Your task to perform on an android device: Add "logitech g903" to the cart on amazon Image 0: 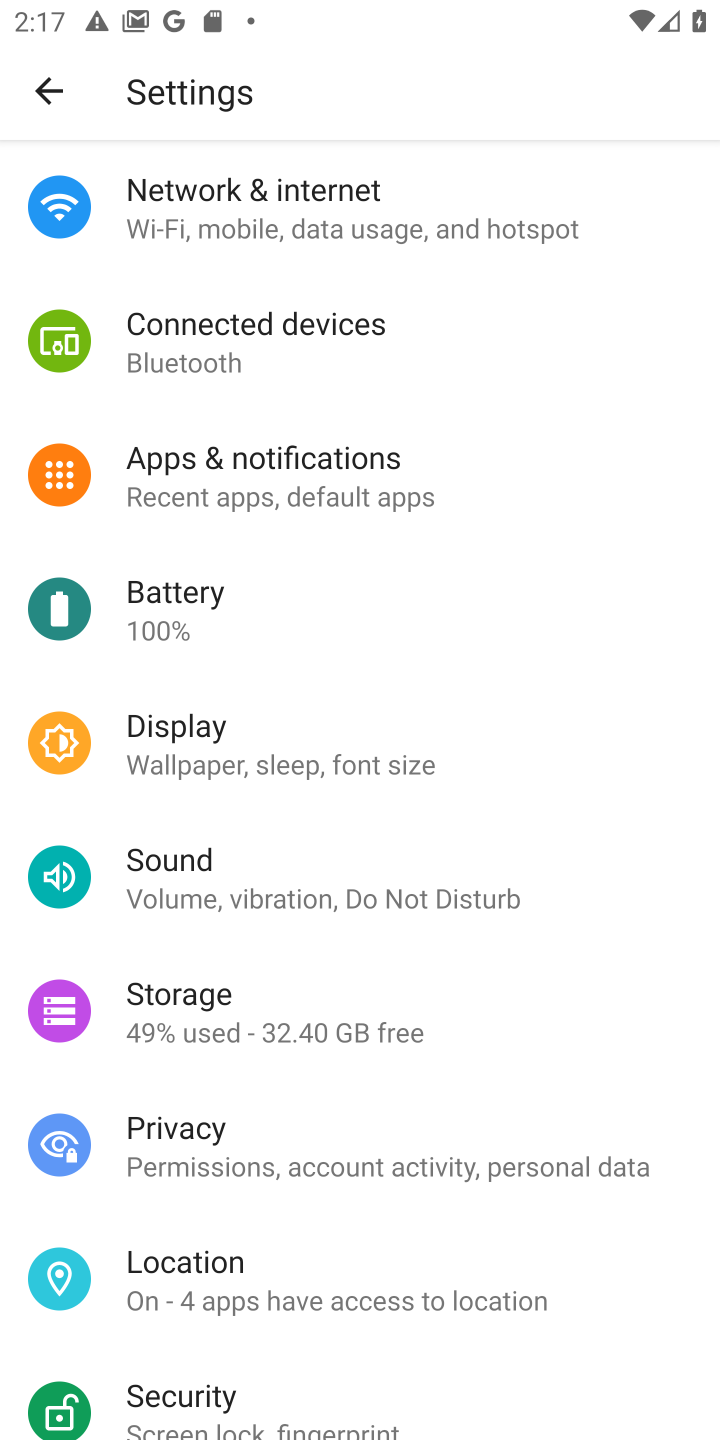
Step 0: press home button
Your task to perform on an android device: Add "logitech g903" to the cart on amazon Image 1: 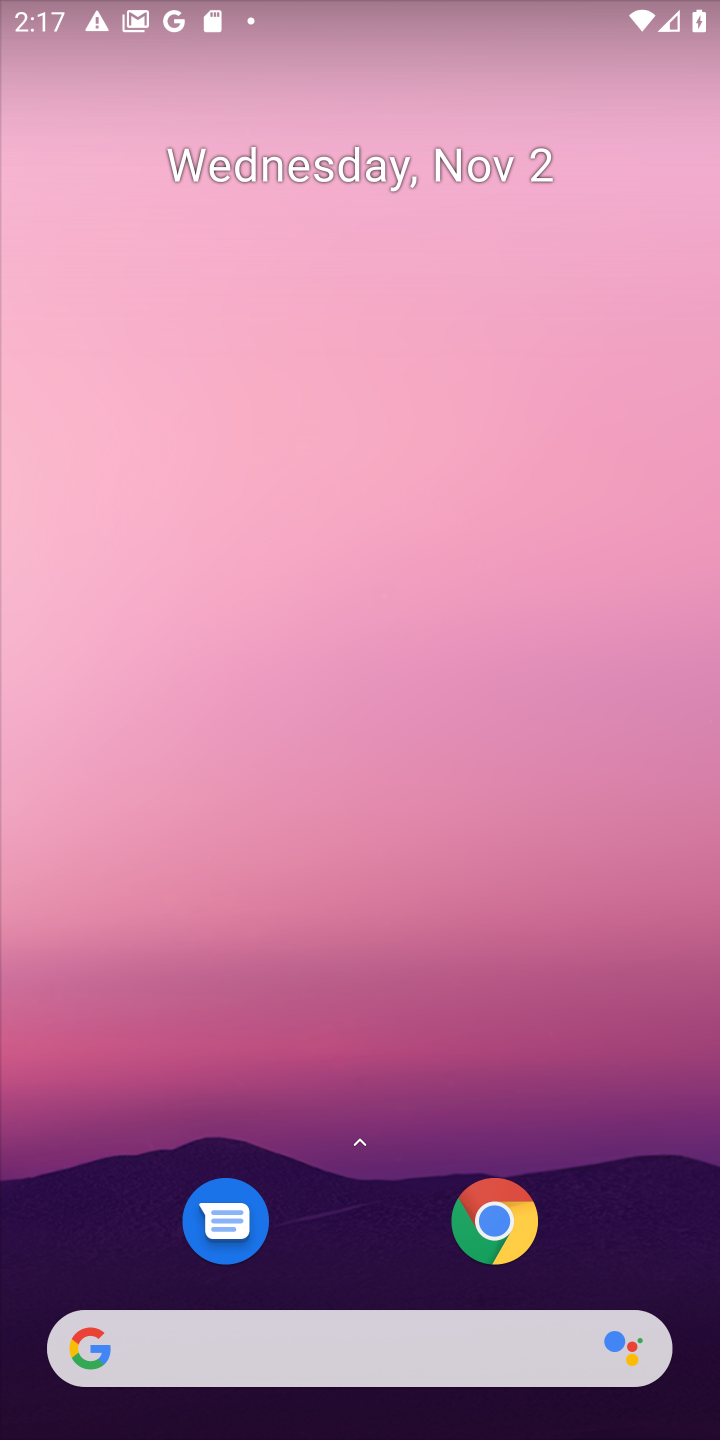
Step 1: click (474, 1338)
Your task to perform on an android device: Add "logitech g903" to the cart on amazon Image 2: 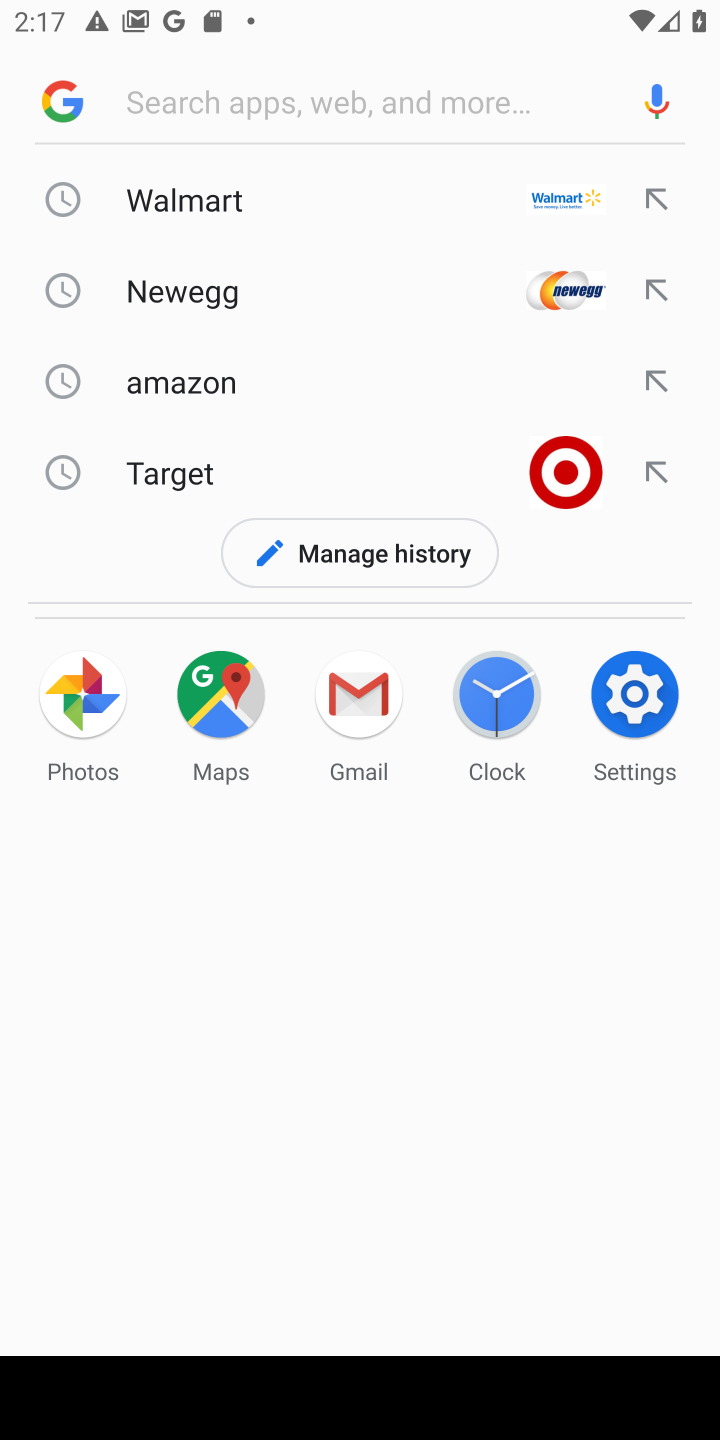
Step 2: click (218, 384)
Your task to perform on an android device: Add "logitech g903" to the cart on amazon Image 3: 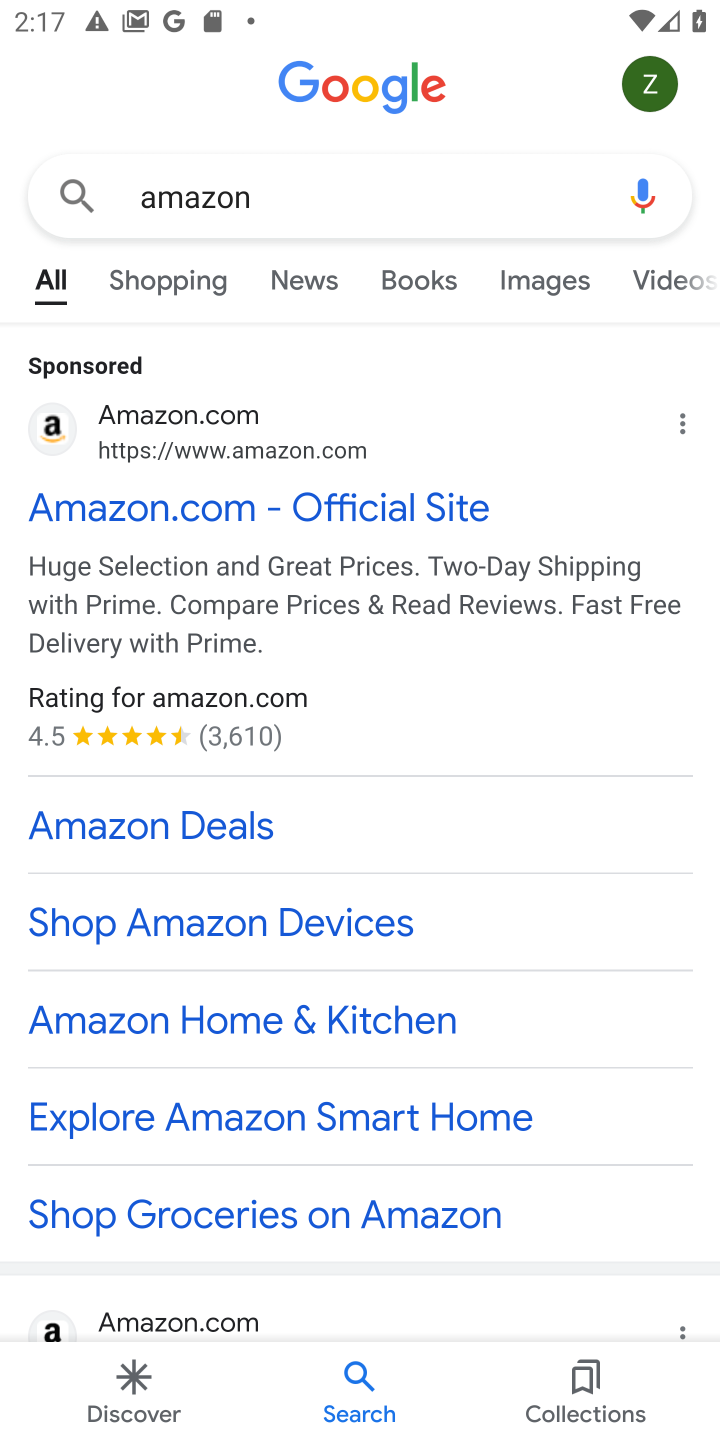
Step 3: click (251, 515)
Your task to perform on an android device: Add "logitech g903" to the cart on amazon Image 4: 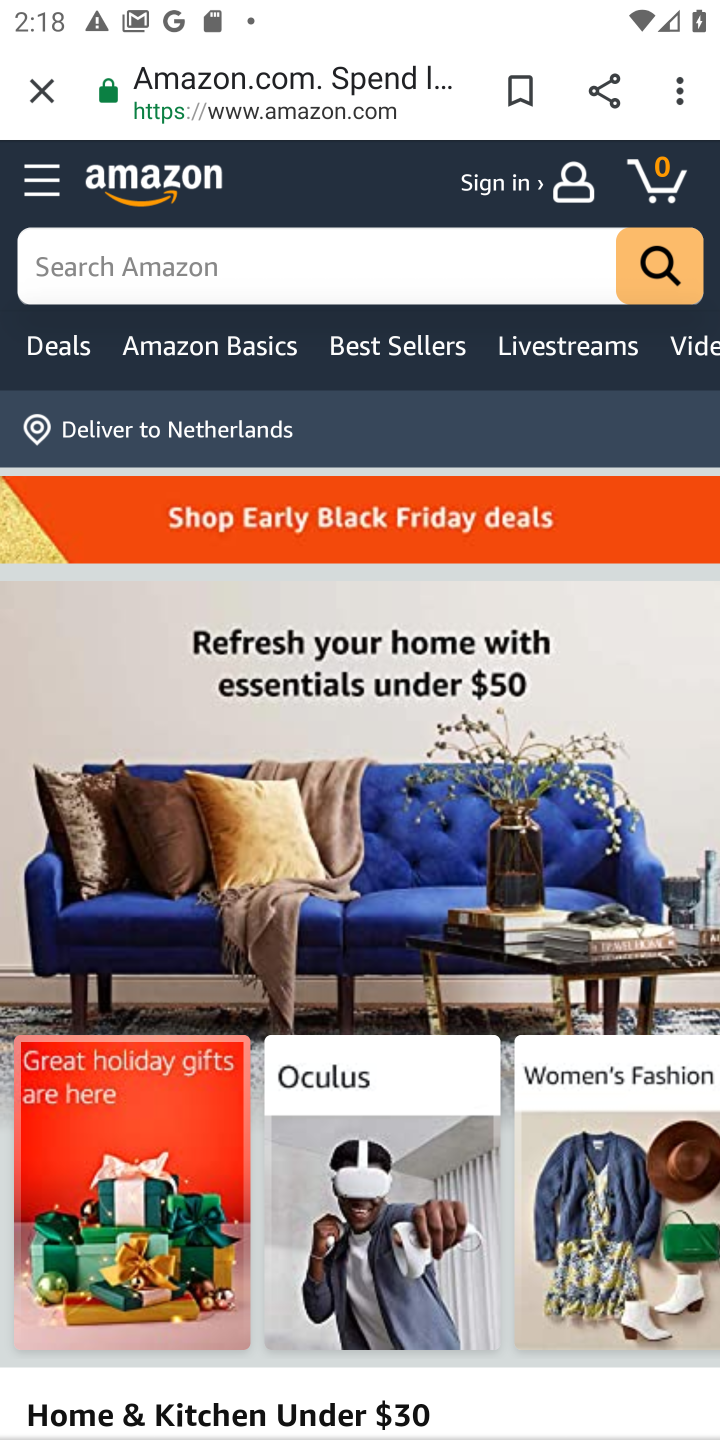
Step 4: click (177, 289)
Your task to perform on an android device: Add "logitech g903" to the cart on amazon Image 5: 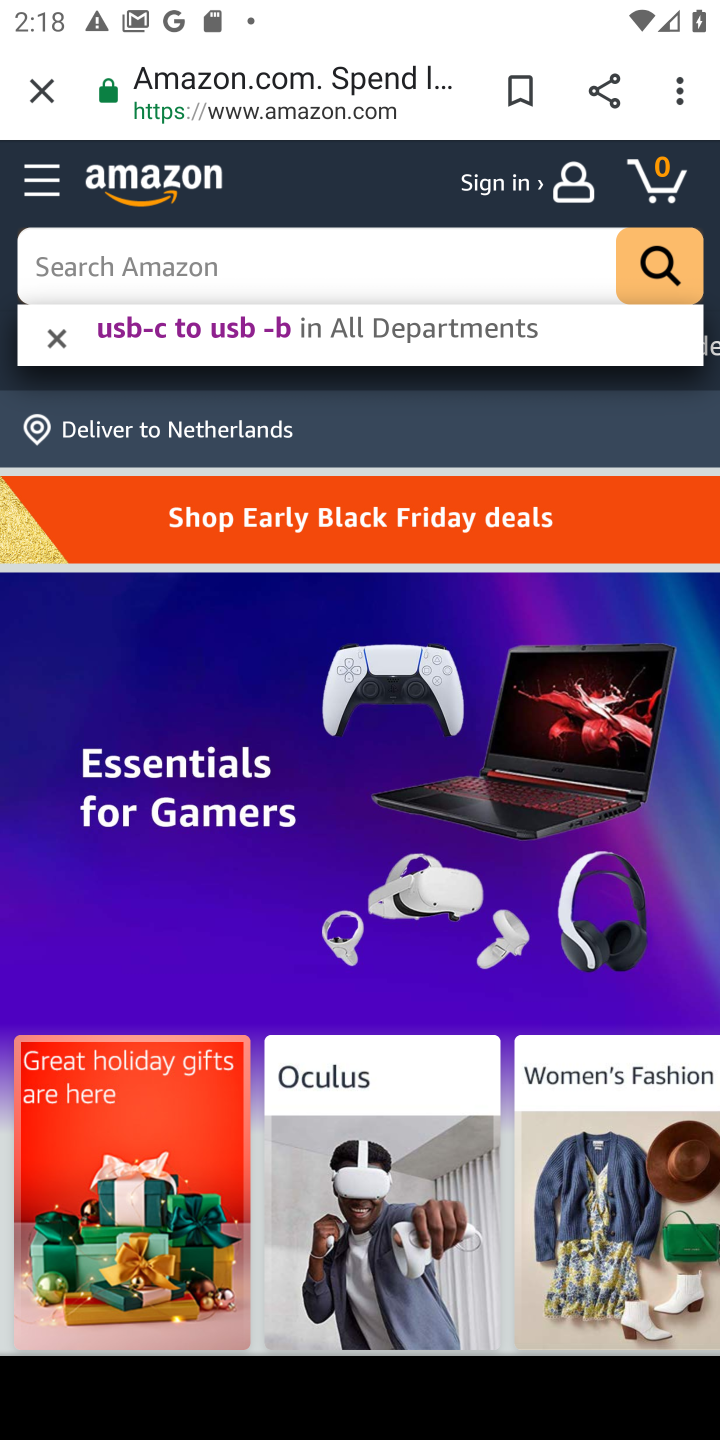
Step 5: type "logitech g903"
Your task to perform on an android device: Add "logitech g903" to the cart on amazon Image 6: 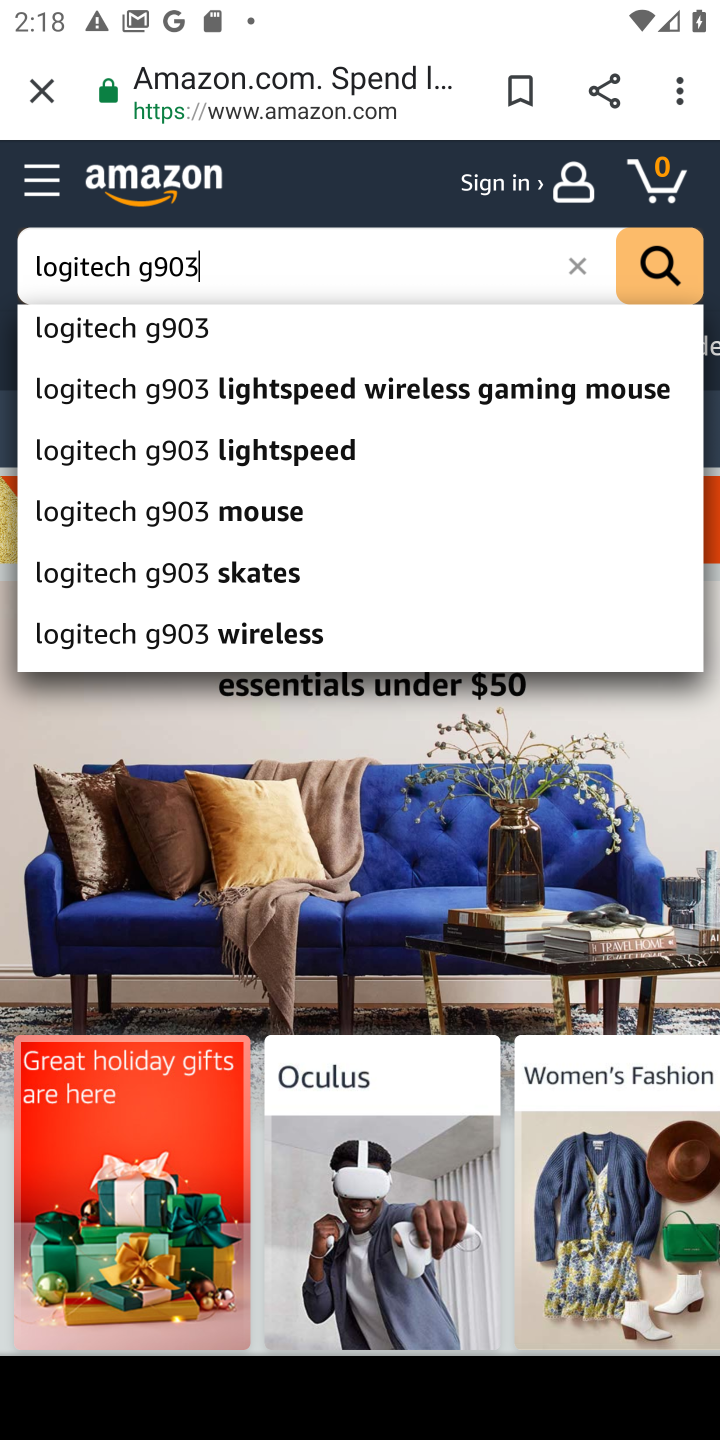
Step 6: click (426, 345)
Your task to perform on an android device: Add "logitech g903" to the cart on amazon Image 7: 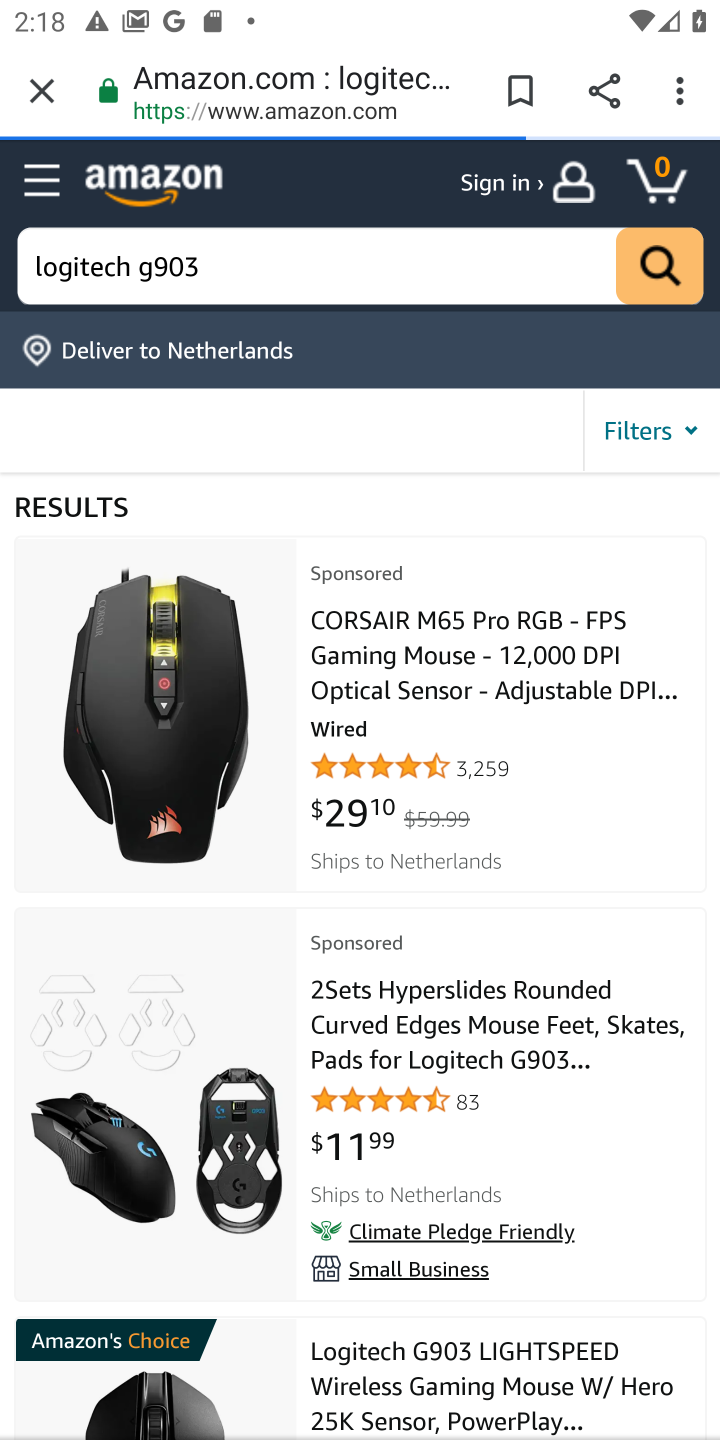
Step 7: click (506, 734)
Your task to perform on an android device: Add "logitech g903" to the cart on amazon Image 8: 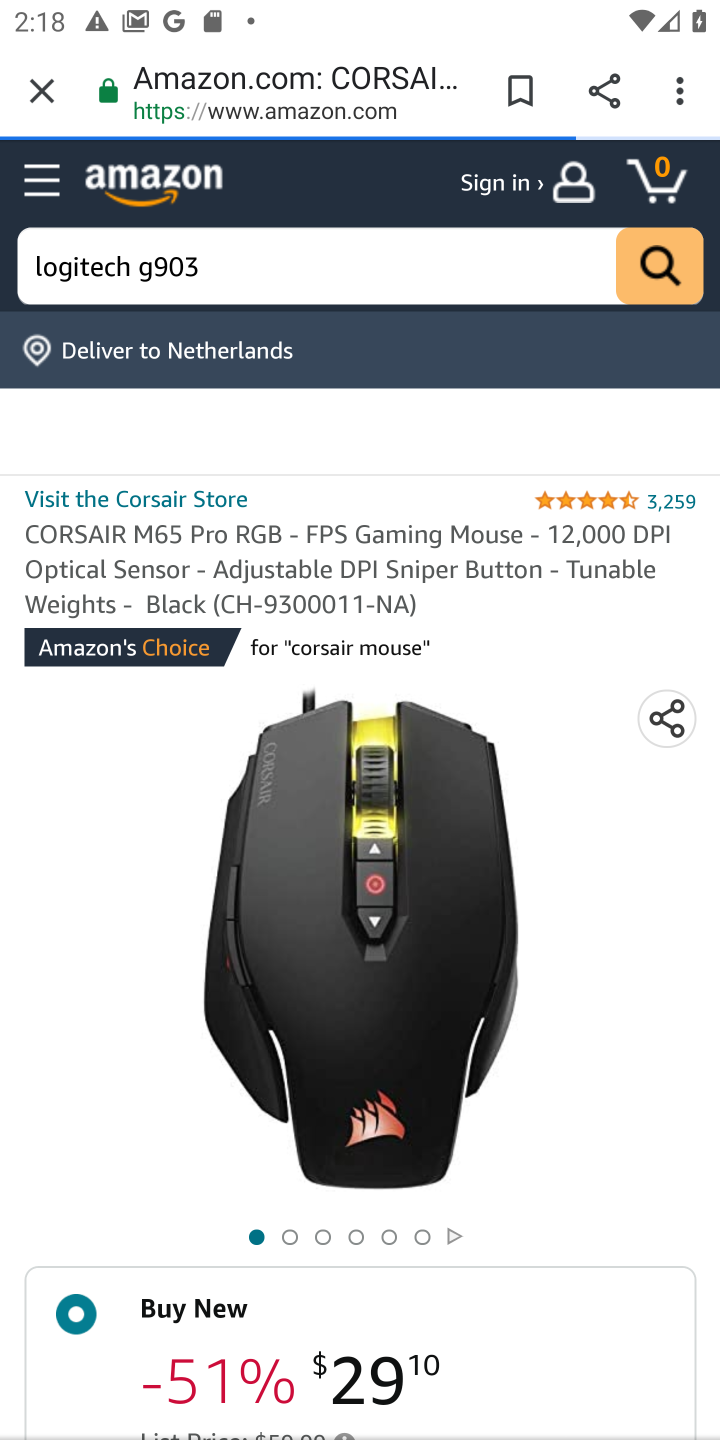
Step 8: drag from (555, 1108) to (542, 689)
Your task to perform on an android device: Add "logitech g903" to the cart on amazon Image 9: 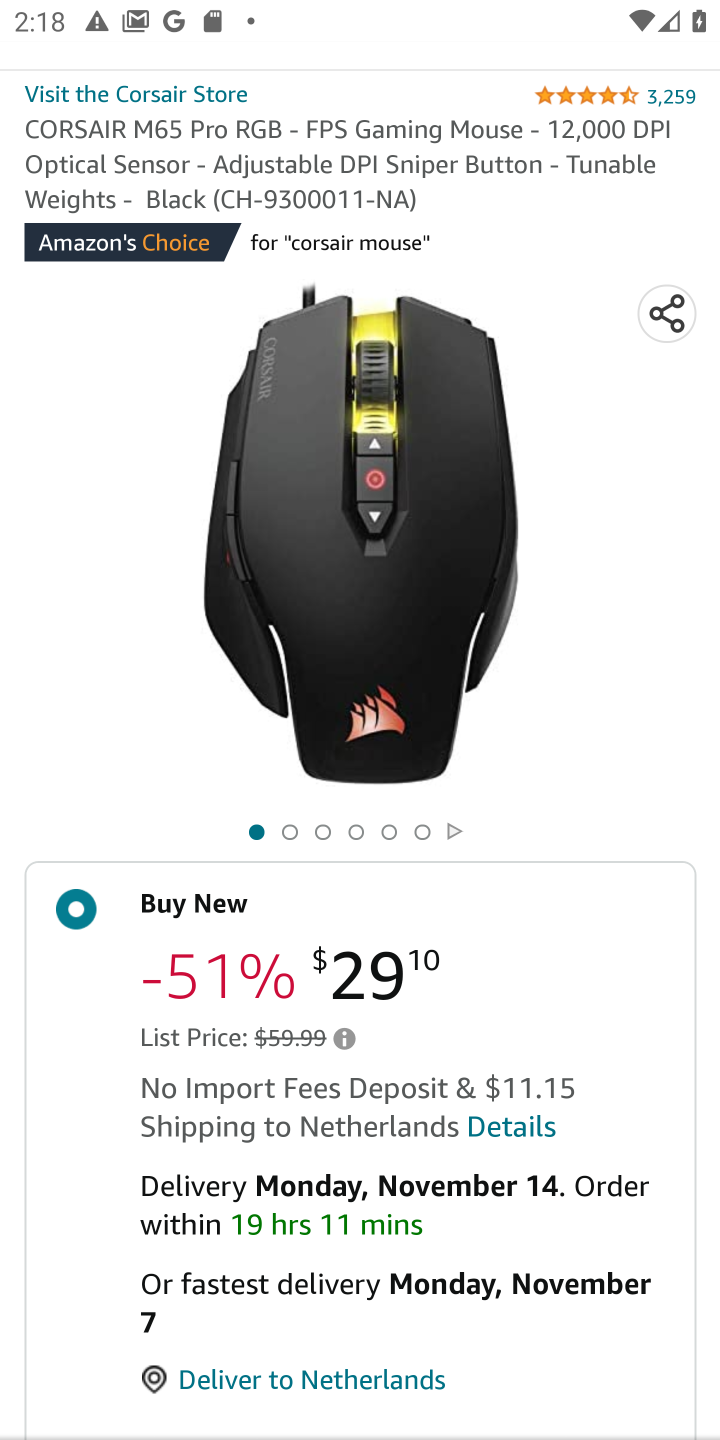
Step 9: drag from (586, 1211) to (573, 959)
Your task to perform on an android device: Add "logitech g903" to the cart on amazon Image 10: 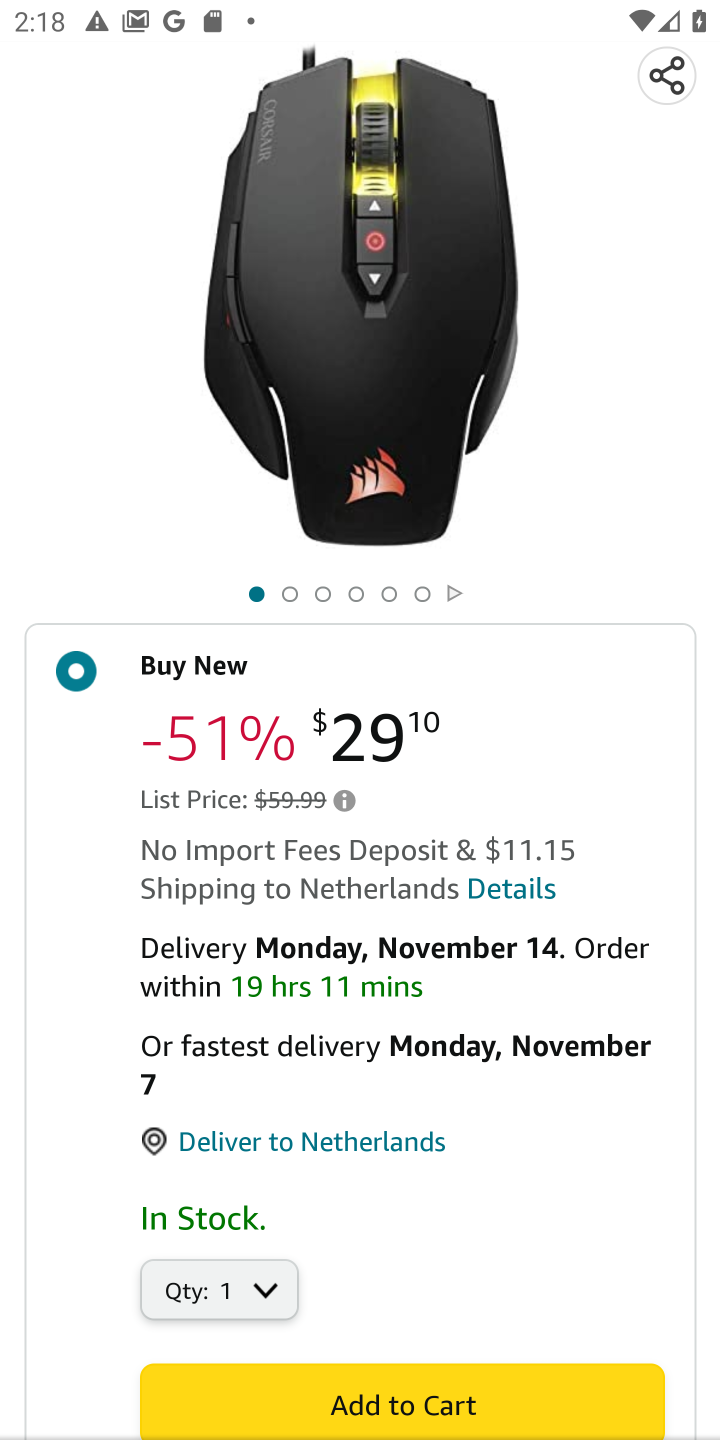
Step 10: click (417, 1415)
Your task to perform on an android device: Add "logitech g903" to the cart on amazon Image 11: 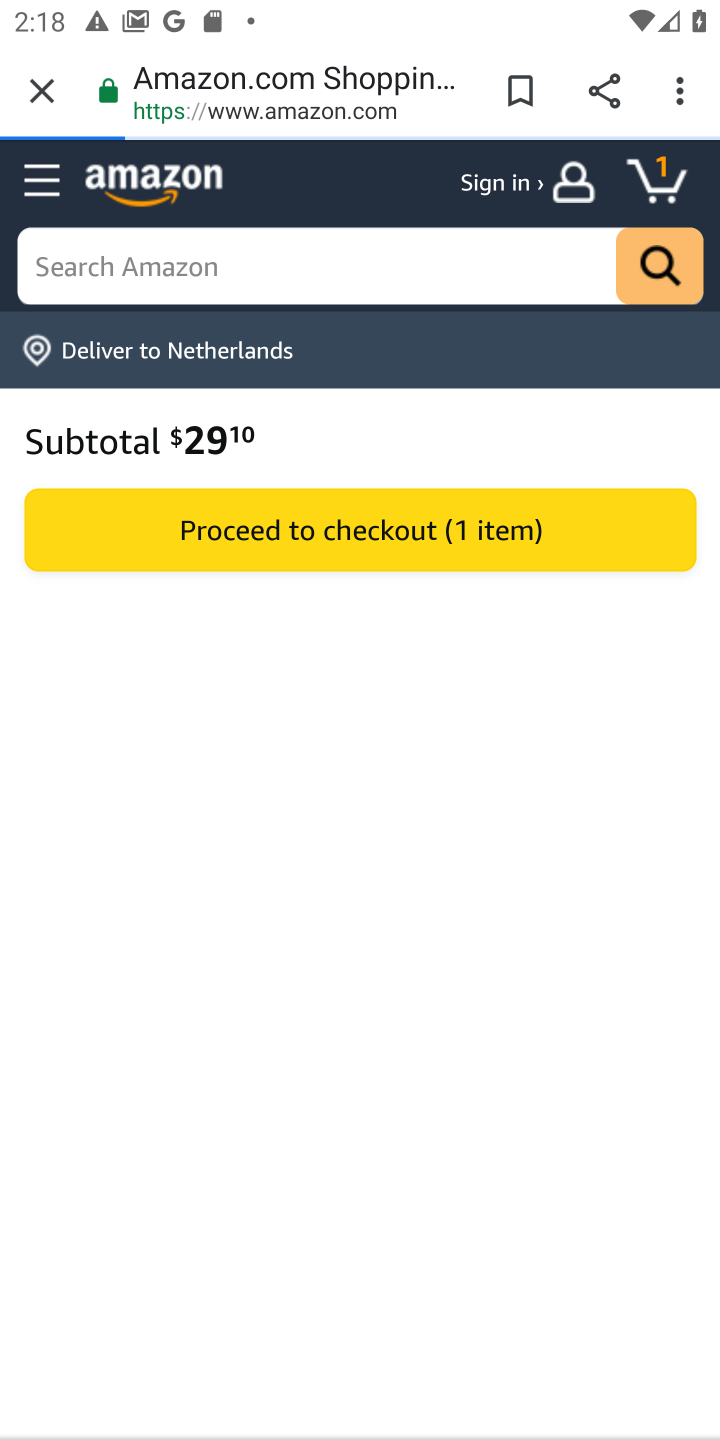
Step 11: task complete